Your task to perform on an android device: turn on the 24-hour format for clock Image 0: 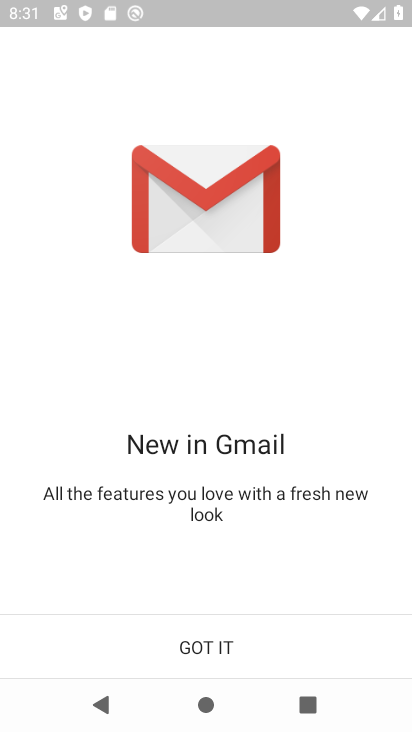
Step 0: press home button
Your task to perform on an android device: turn on the 24-hour format for clock Image 1: 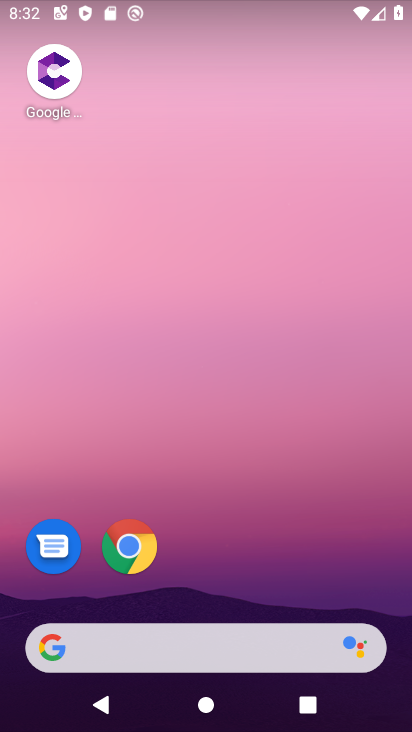
Step 1: drag from (214, 609) to (309, 193)
Your task to perform on an android device: turn on the 24-hour format for clock Image 2: 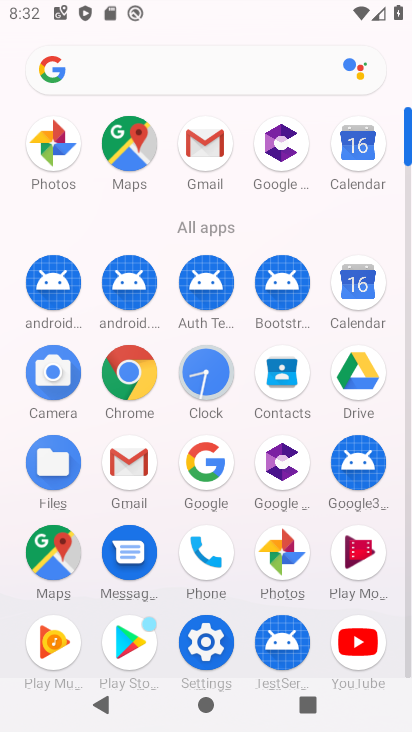
Step 2: click (223, 376)
Your task to perform on an android device: turn on the 24-hour format for clock Image 3: 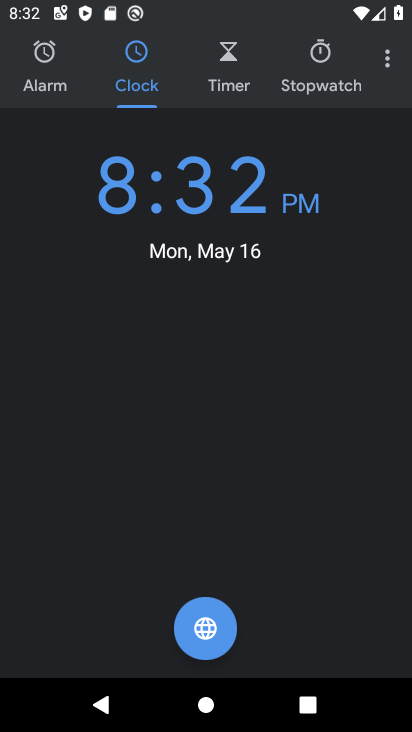
Step 3: click (394, 58)
Your task to perform on an android device: turn on the 24-hour format for clock Image 4: 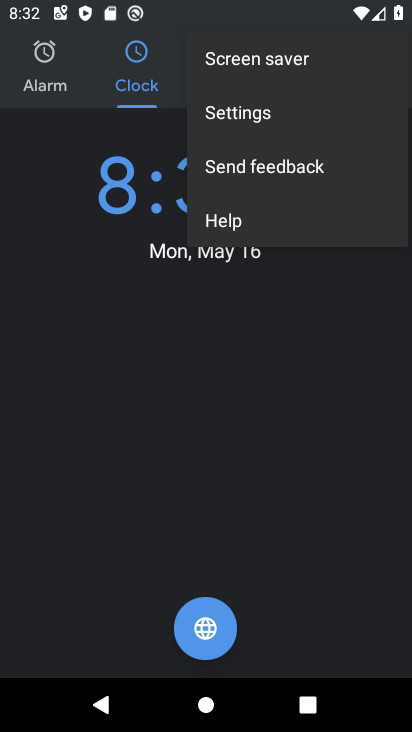
Step 4: click (360, 113)
Your task to perform on an android device: turn on the 24-hour format for clock Image 5: 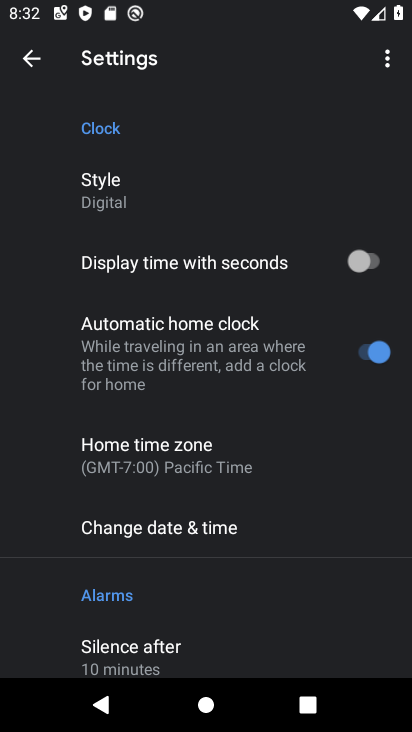
Step 5: click (253, 539)
Your task to perform on an android device: turn on the 24-hour format for clock Image 6: 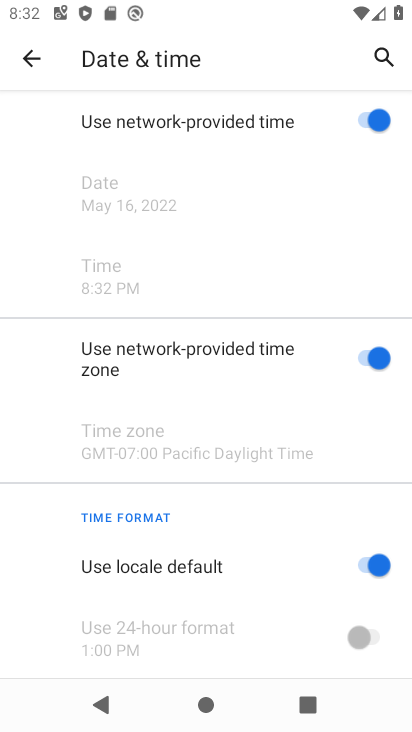
Step 6: drag from (314, 587) to (304, 340)
Your task to perform on an android device: turn on the 24-hour format for clock Image 7: 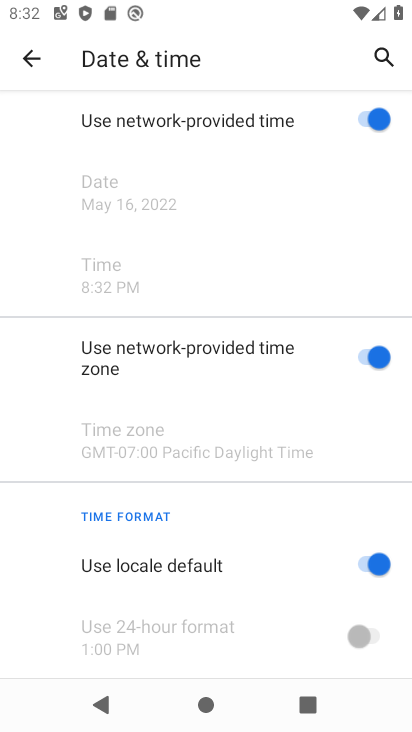
Step 7: click (377, 564)
Your task to perform on an android device: turn on the 24-hour format for clock Image 8: 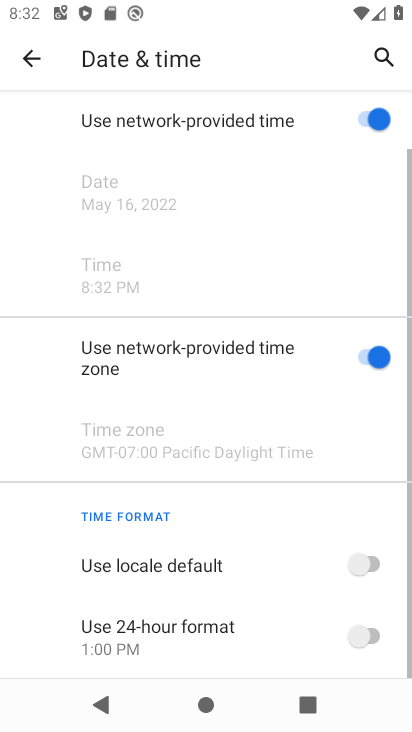
Step 8: click (377, 642)
Your task to perform on an android device: turn on the 24-hour format for clock Image 9: 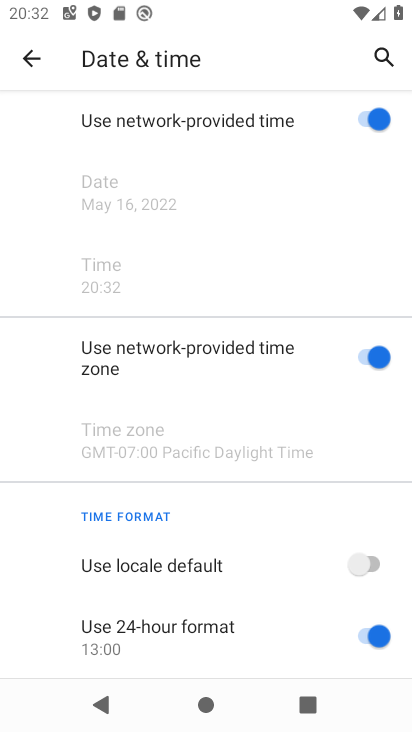
Step 9: task complete